Your task to perform on an android device: turn vacation reply on in the gmail app Image 0: 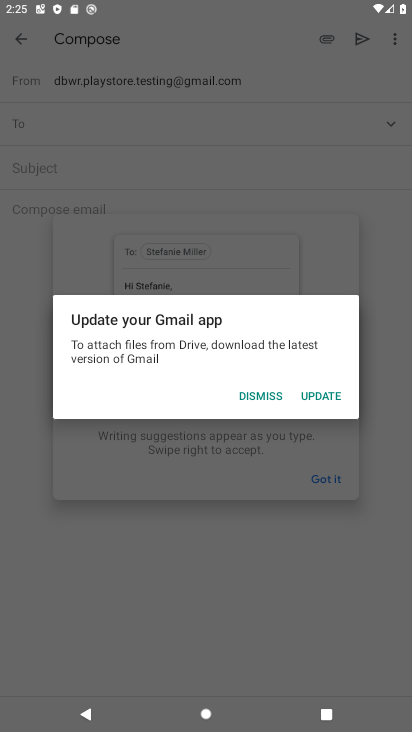
Step 0: press home button
Your task to perform on an android device: turn vacation reply on in the gmail app Image 1: 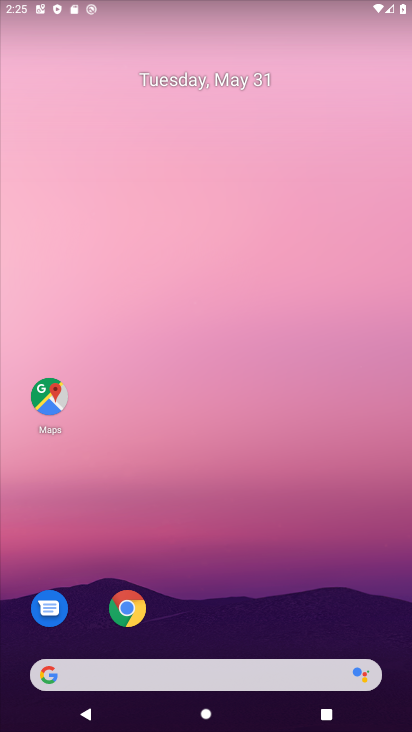
Step 1: drag from (229, 595) to (254, 508)
Your task to perform on an android device: turn vacation reply on in the gmail app Image 2: 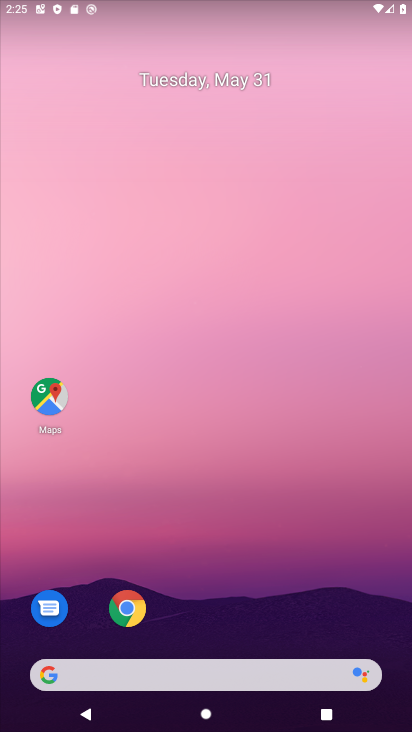
Step 2: drag from (213, 544) to (361, 37)
Your task to perform on an android device: turn vacation reply on in the gmail app Image 3: 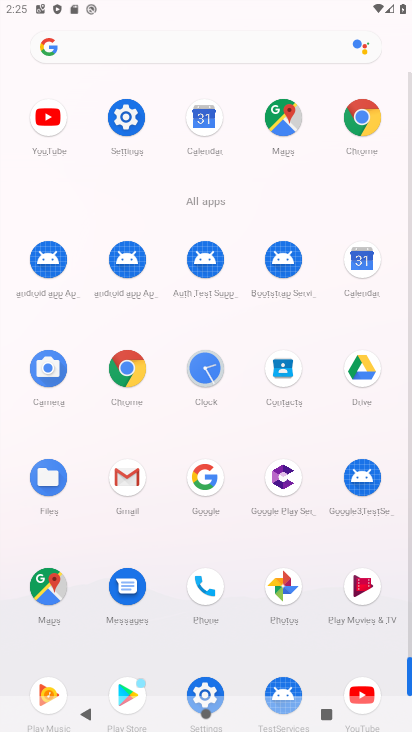
Step 3: click (121, 477)
Your task to perform on an android device: turn vacation reply on in the gmail app Image 4: 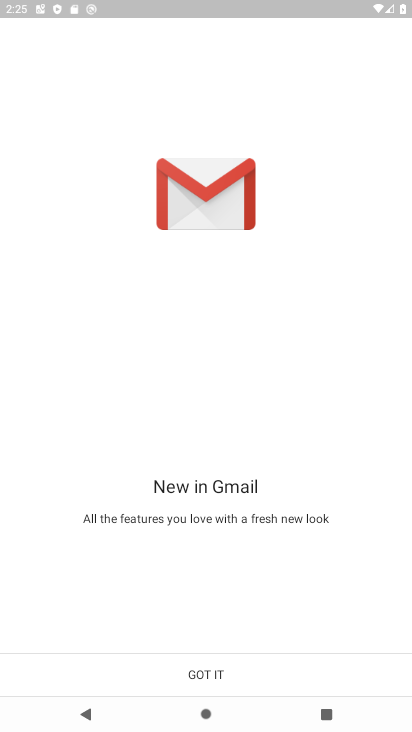
Step 4: click (209, 674)
Your task to perform on an android device: turn vacation reply on in the gmail app Image 5: 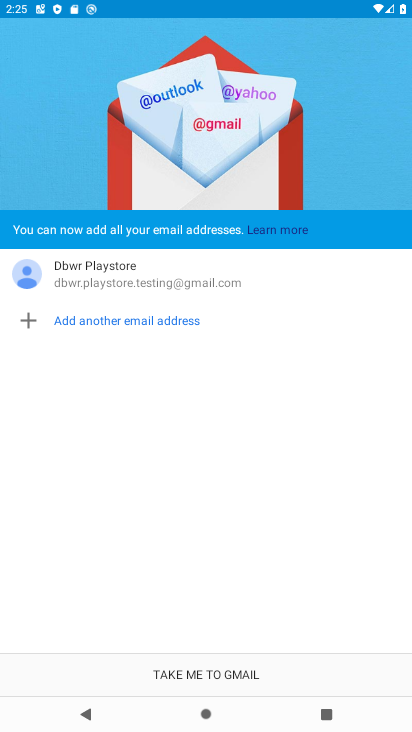
Step 5: click (210, 679)
Your task to perform on an android device: turn vacation reply on in the gmail app Image 6: 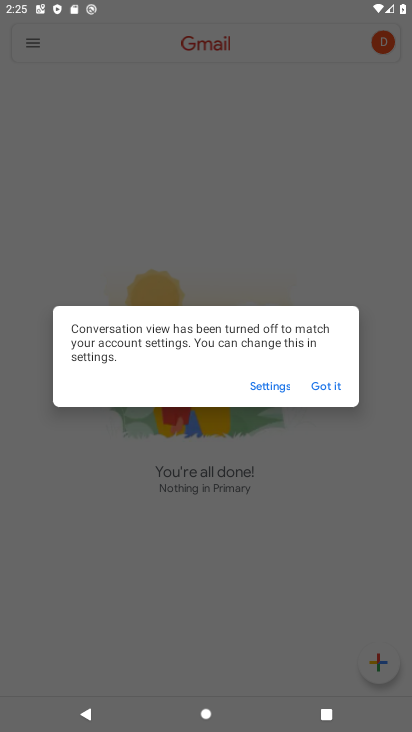
Step 6: click (328, 391)
Your task to perform on an android device: turn vacation reply on in the gmail app Image 7: 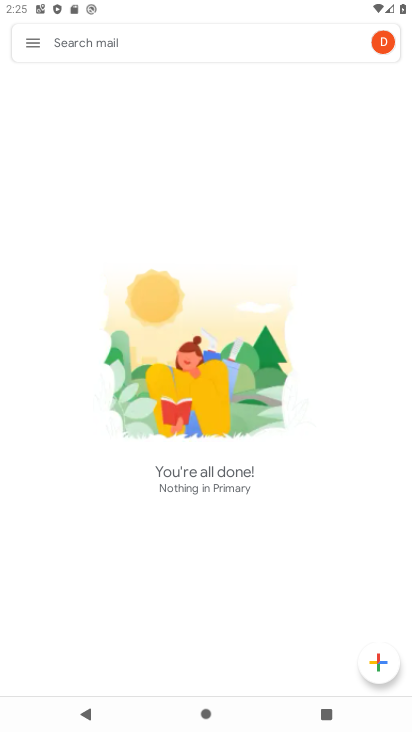
Step 7: click (36, 35)
Your task to perform on an android device: turn vacation reply on in the gmail app Image 8: 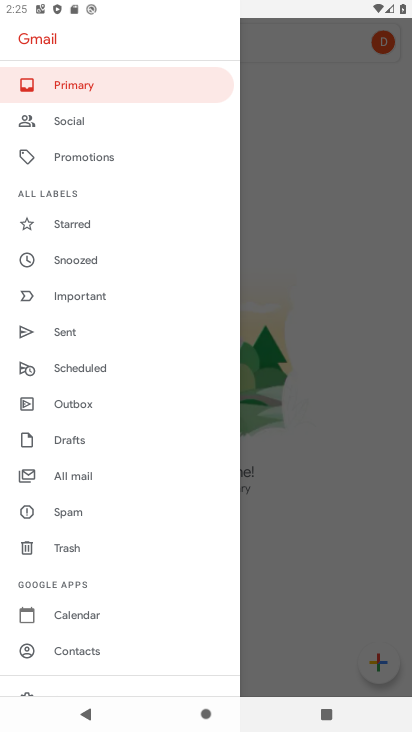
Step 8: drag from (67, 652) to (120, 169)
Your task to perform on an android device: turn vacation reply on in the gmail app Image 9: 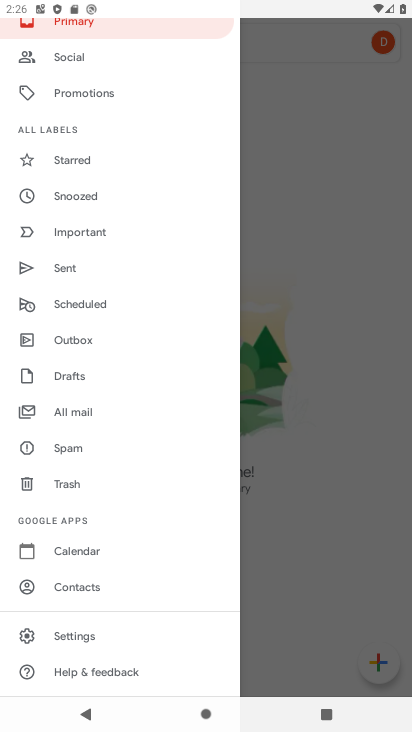
Step 9: click (79, 640)
Your task to perform on an android device: turn vacation reply on in the gmail app Image 10: 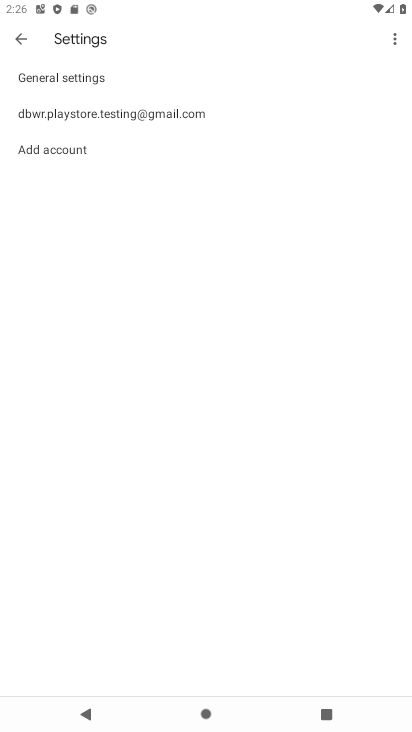
Step 10: click (135, 111)
Your task to perform on an android device: turn vacation reply on in the gmail app Image 11: 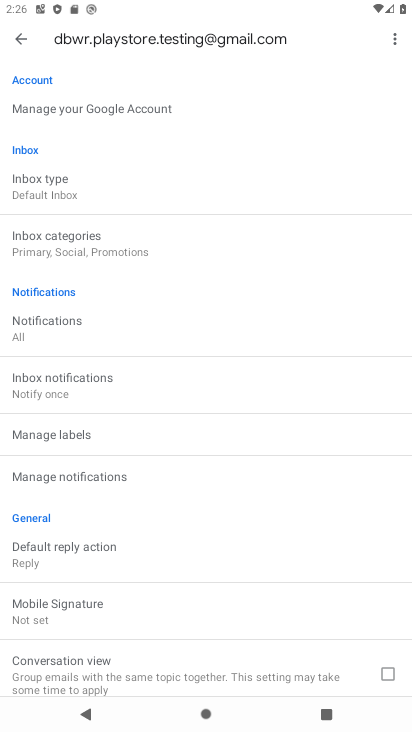
Step 11: drag from (103, 481) to (141, 116)
Your task to perform on an android device: turn vacation reply on in the gmail app Image 12: 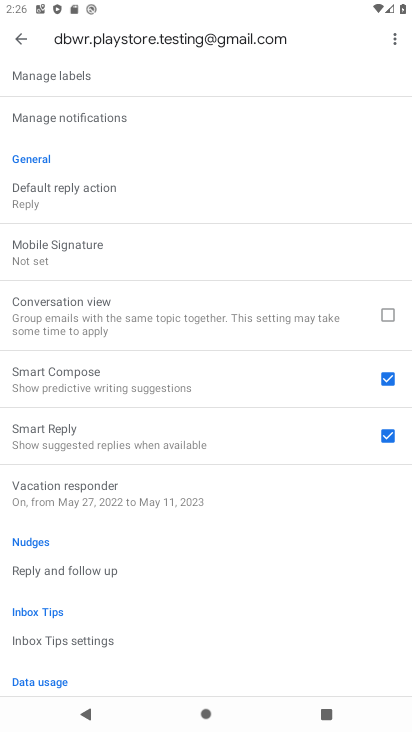
Step 12: click (122, 500)
Your task to perform on an android device: turn vacation reply on in the gmail app Image 13: 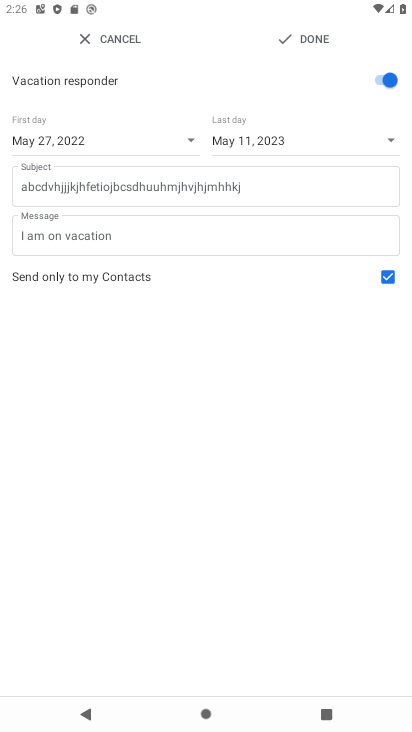
Step 13: task complete